Your task to perform on an android device: Go to Android settings Image 0: 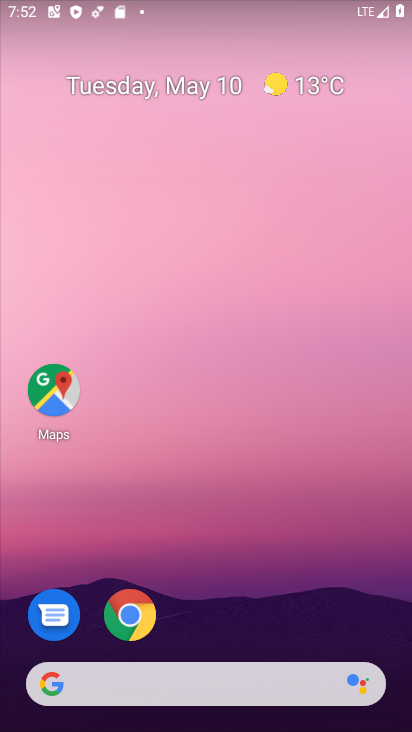
Step 0: drag from (292, 583) to (306, 74)
Your task to perform on an android device: Go to Android settings Image 1: 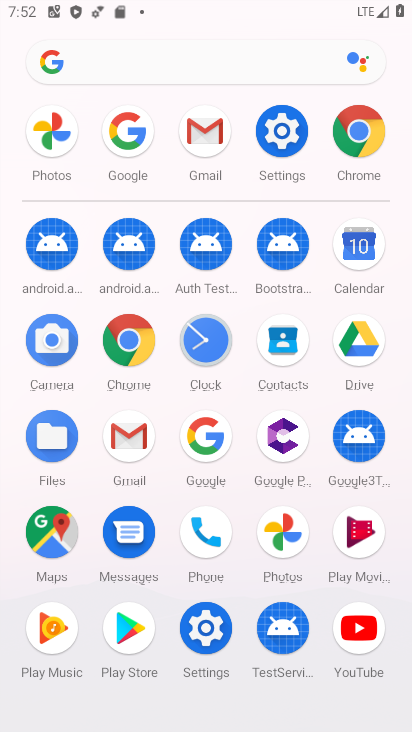
Step 1: click (277, 135)
Your task to perform on an android device: Go to Android settings Image 2: 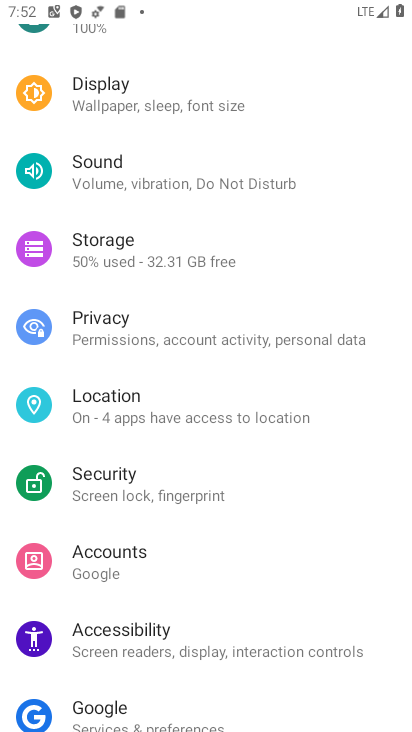
Step 2: drag from (164, 652) to (188, 102)
Your task to perform on an android device: Go to Android settings Image 3: 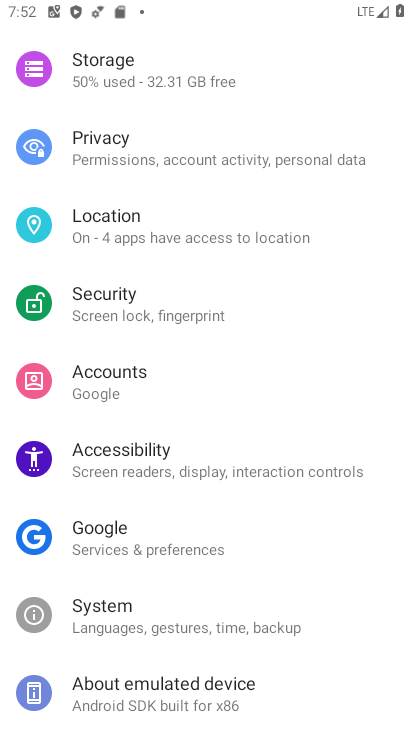
Step 3: drag from (171, 441) to (170, 266)
Your task to perform on an android device: Go to Android settings Image 4: 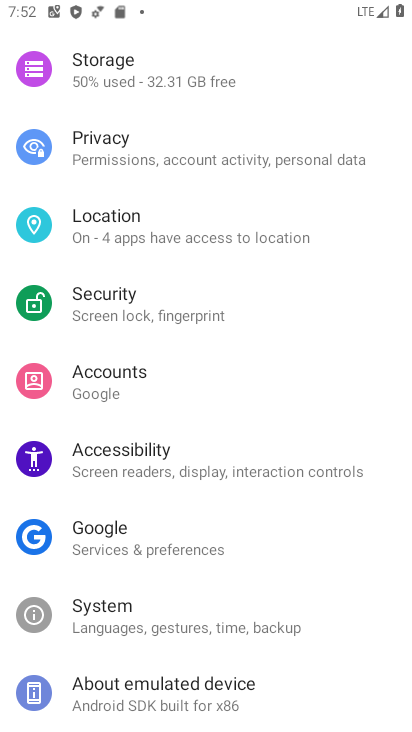
Step 4: click (155, 701)
Your task to perform on an android device: Go to Android settings Image 5: 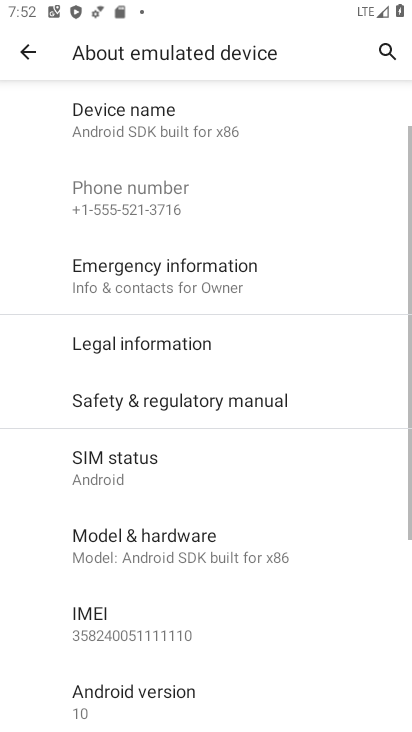
Step 5: drag from (195, 264) to (149, 661)
Your task to perform on an android device: Go to Android settings Image 6: 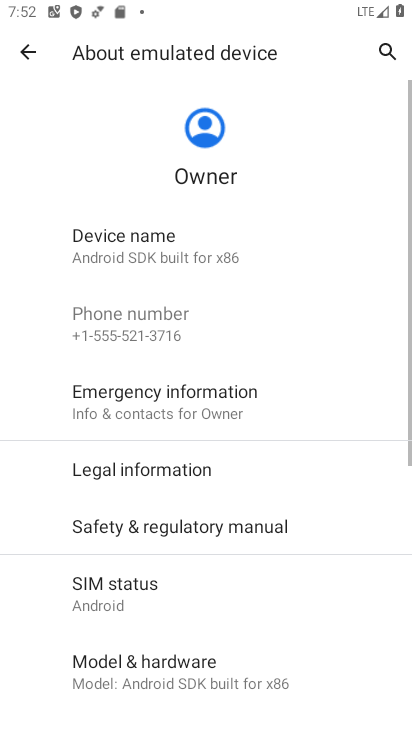
Step 6: drag from (176, 619) to (268, 142)
Your task to perform on an android device: Go to Android settings Image 7: 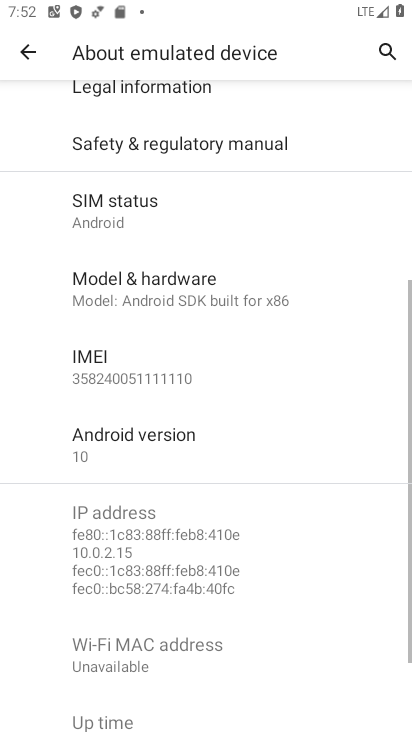
Step 7: click (88, 441)
Your task to perform on an android device: Go to Android settings Image 8: 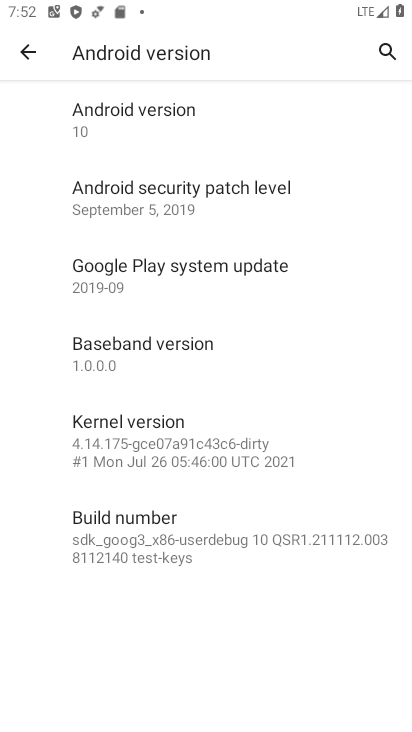
Step 8: task complete